Your task to perform on an android device: add a label to a message in the gmail app Image 0: 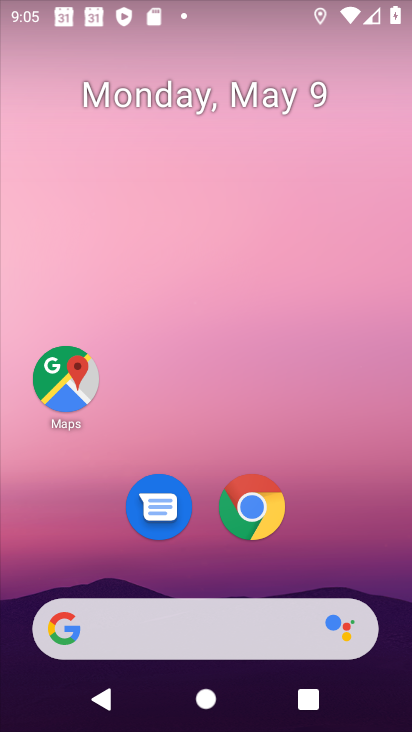
Step 0: drag from (135, 578) to (265, 99)
Your task to perform on an android device: add a label to a message in the gmail app Image 1: 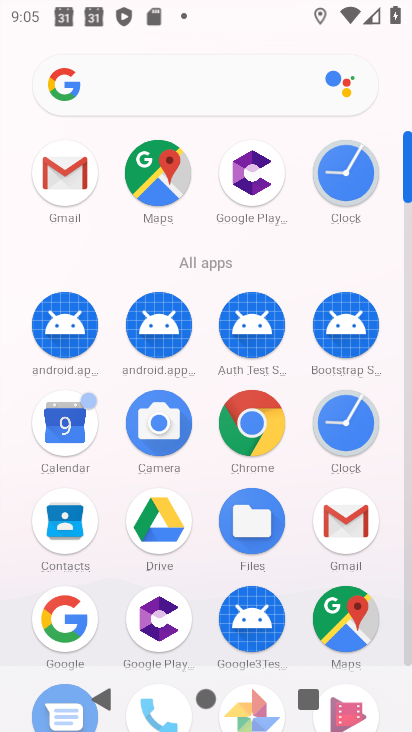
Step 1: click (354, 514)
Your task to perform on an android device: add a label to a message in the gmail app Image 2: 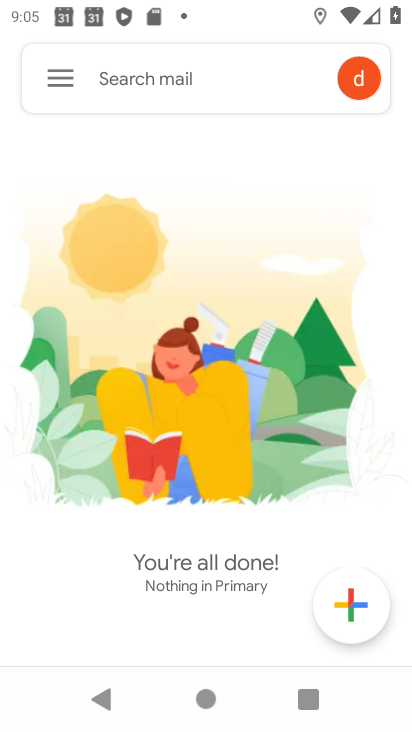
Step 2: click (60, 80)
Your task to perform on an android device: add a label to a message in the gmail app Image 3: 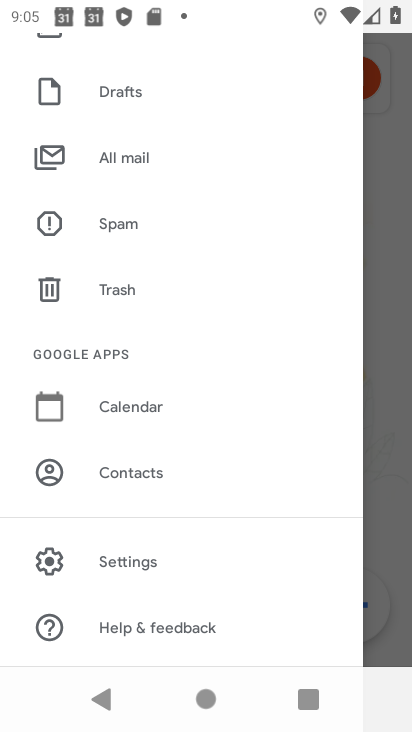
Step 3: click (142, 159)
Your task to perform on an android device: add a label to a message in the gmail app Image 4: 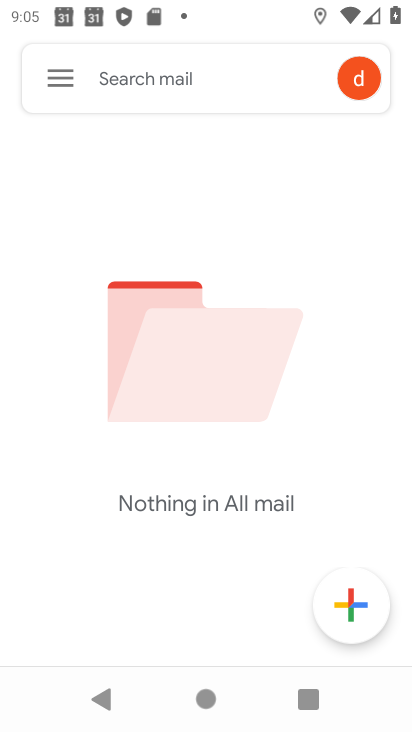
Step 4: task complete